Your task to perform on an android device: visit the assistant section in the google photos Image 0: 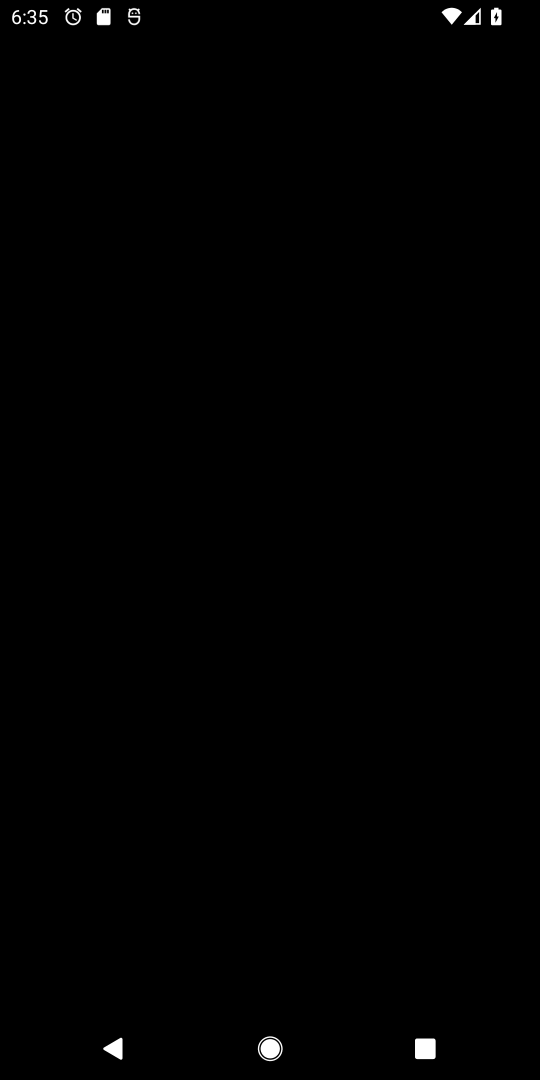
Step 0: press home button
Your task to perform on an android device: visit the assistant section in the google photos Image 1: 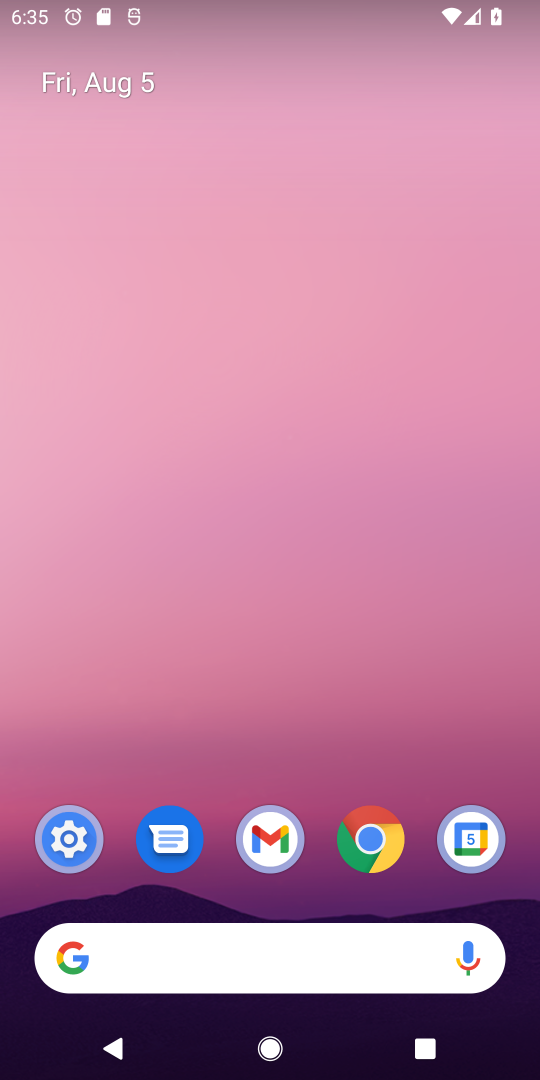
Step 1: drag from (322, 739) to (343, 316)
Your task to perform on an android device: visit the assistant section in the google photos Image 2: 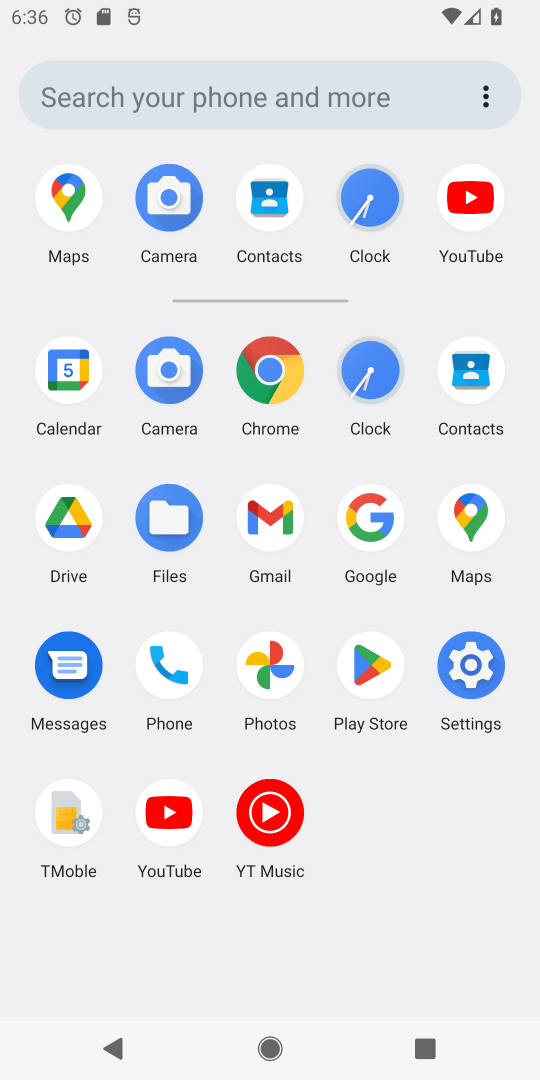
Step 2: click (232, 680)
Your task to perform on an android device: visit the assistant section in the google photos Image 3: 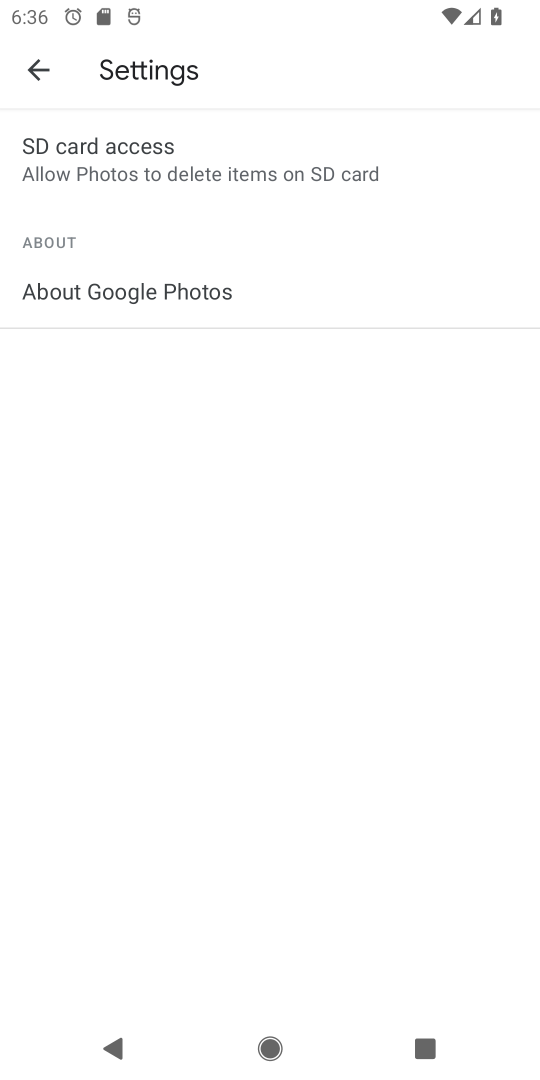
Step 3: task complete